Your task to perform on an android device: delete a single message in the gmail app Image 0: 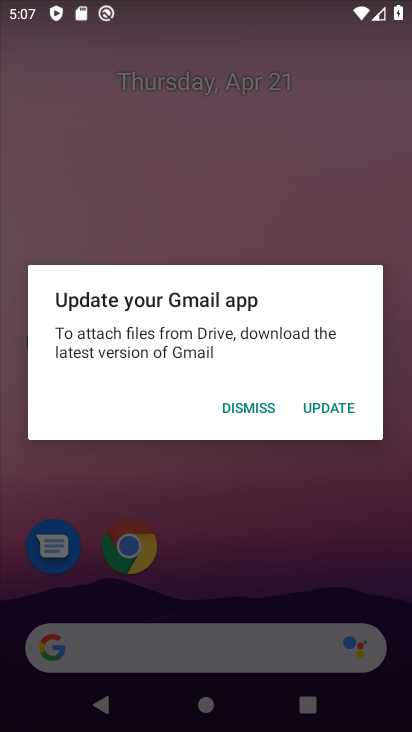
Step 0: press home button
Your task to perform on an android device: delete a single message in the gmail app Image 1: 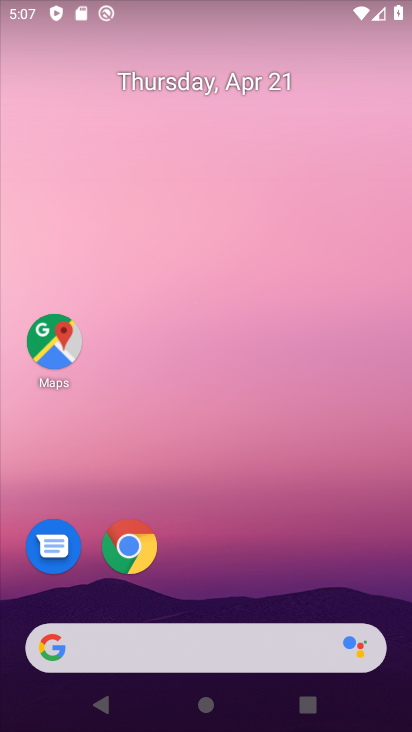
Step 1: press home button
Your task to perform on an android device: delete a single message in the gmail app Image 2: 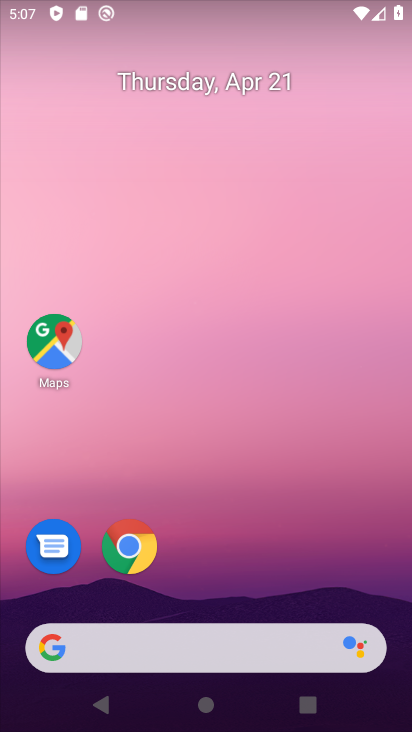
Step 2: drag from (277, 575) to (274, 3)
Your task to perform on an android device: delete a single message in the gmail app Image 3: 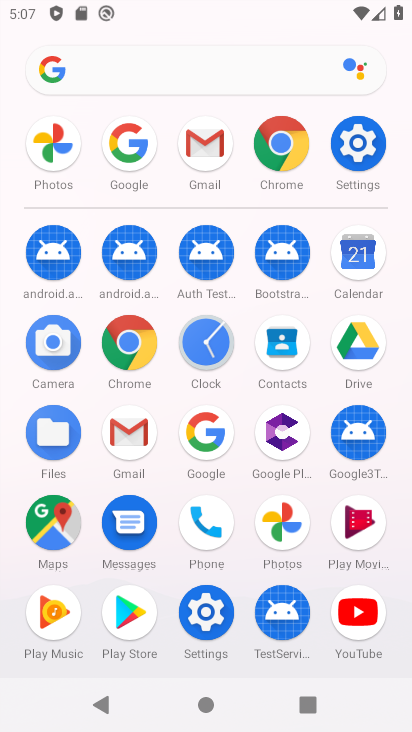
Step 3: click (130, 430)
Your task to perform on an android device: delete a single message in the gmail app Image 4: 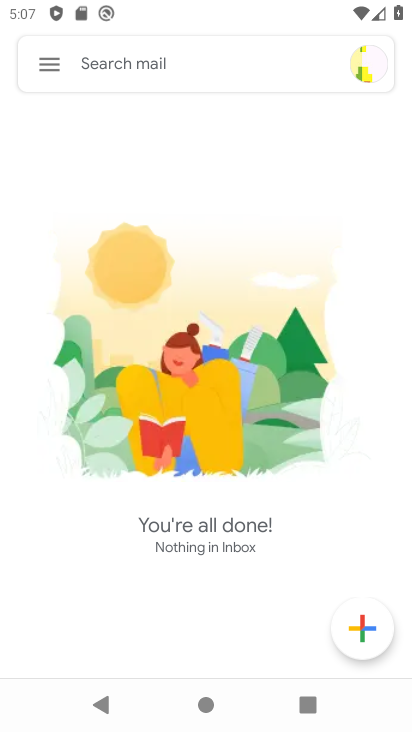
Step 4: click (48, 66)
Your task to perform on an android device: delete a single message in the gmail app Image 5: 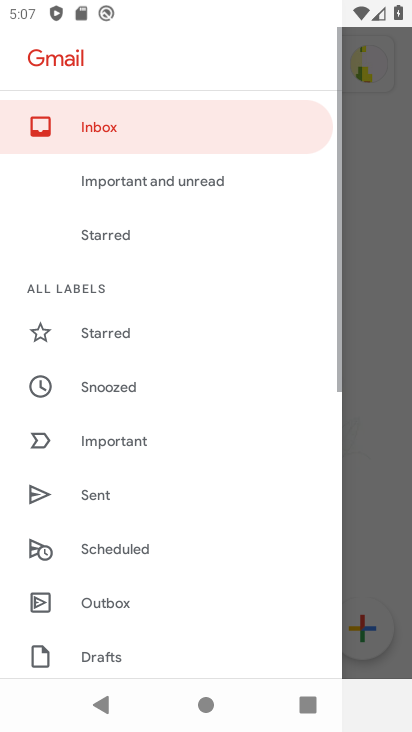
Step 5: drag from (96, 647) to (94, 278)
Your task to perform on an android device: delete a single message in the gmail app Image 6: 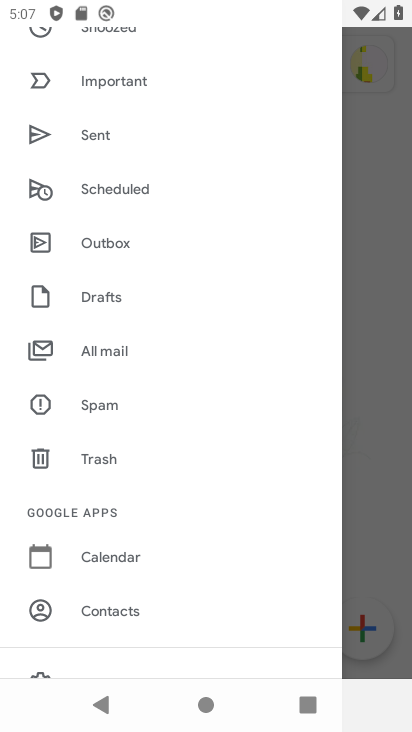
Step 6: click (110, 349)
Your task to perform on an android device: delete a single message in the gmail app Image 7: 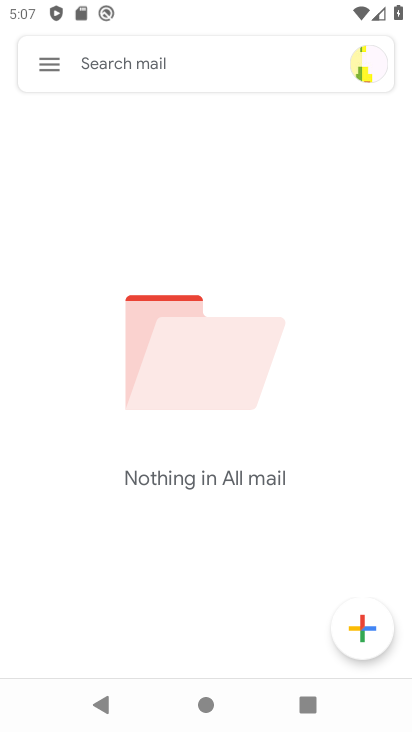
Step 7: task complete